Your task to perform on an android device: Open the calendar and show me this week's events? Image 0: 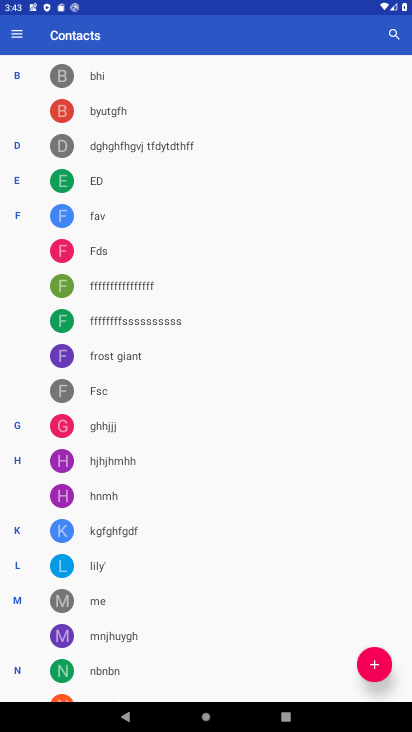
Step 0: press home button
Your task to perform on an android device: Open the calendar and show me this week's events? Image 1: 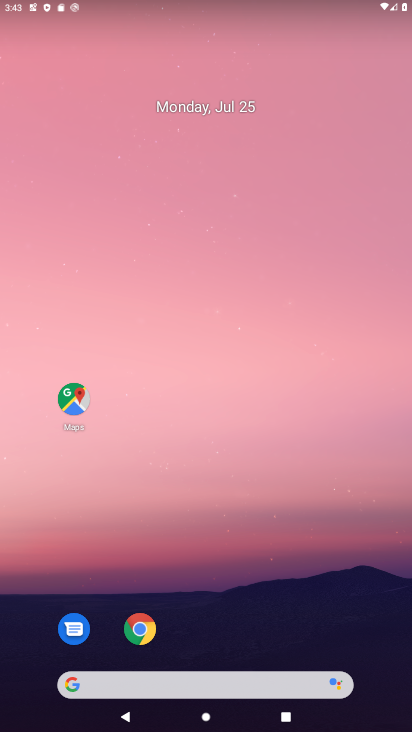
Step 1: drag from (296, 671) to (366, 26)
Your task to perform on an android device: Open the calendar and show me this week's events? Image 2: 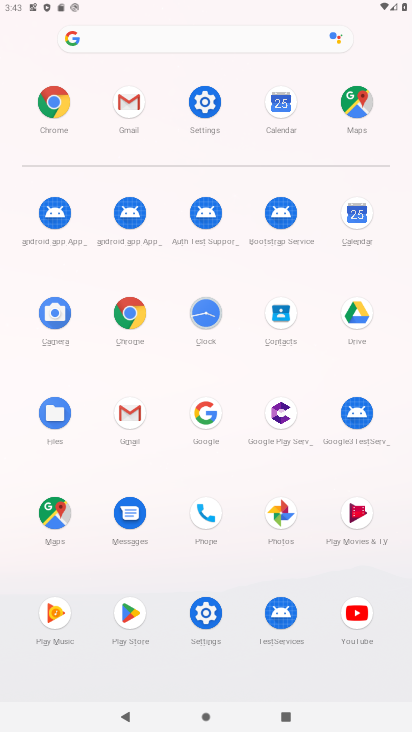
Step 2: click (348, 214)
Your task to perform on an android device: Open the calendar and show me this week's events? Image 3: 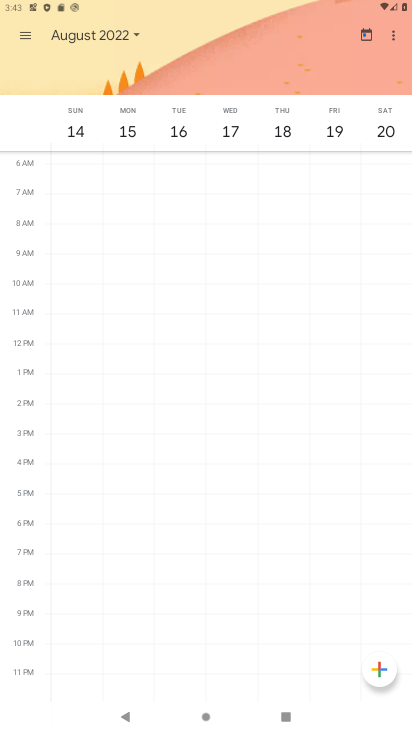
Step 3: click (133, 33)
Your task to perform on an android device: Open the calendar and show me this week's events? Image 4: 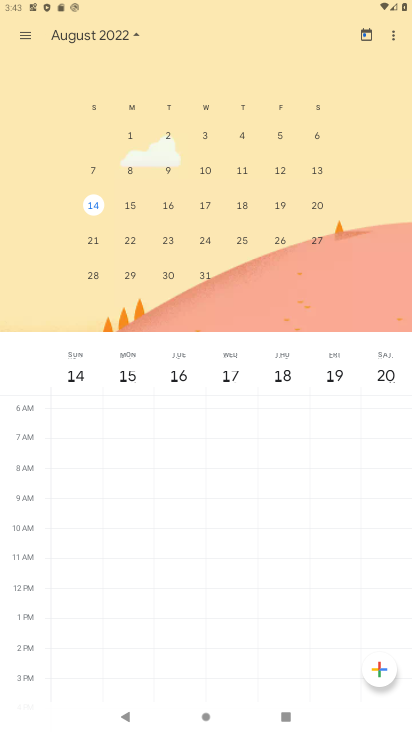
Step 4: drag from (137, 238) to (411, 672)
Your task to perform on an android device: Open the calendar and show me this week's events? Image 5: 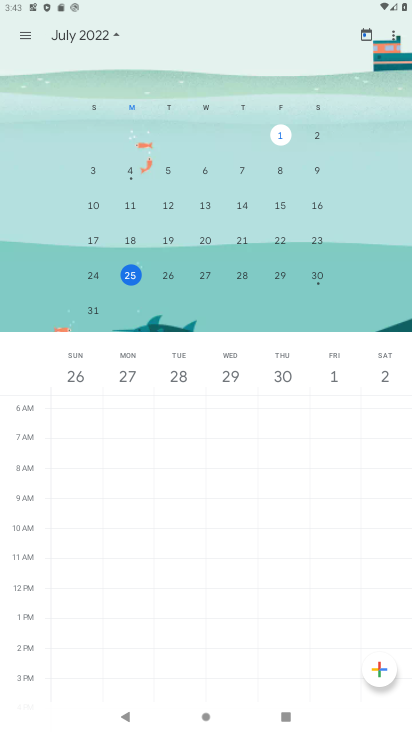
Step 5: click (169, 276)
Your task to perform on an android device: Open the calendar and show me this week's events? Image 6: 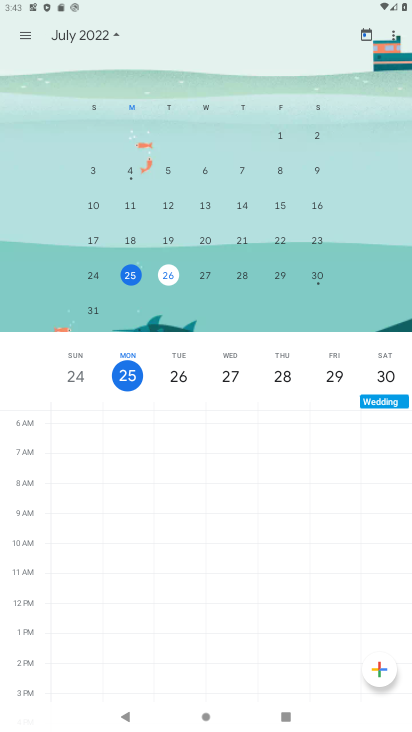
Step 6: task complete